Your task to perform on an android device: add a contact Image 0: 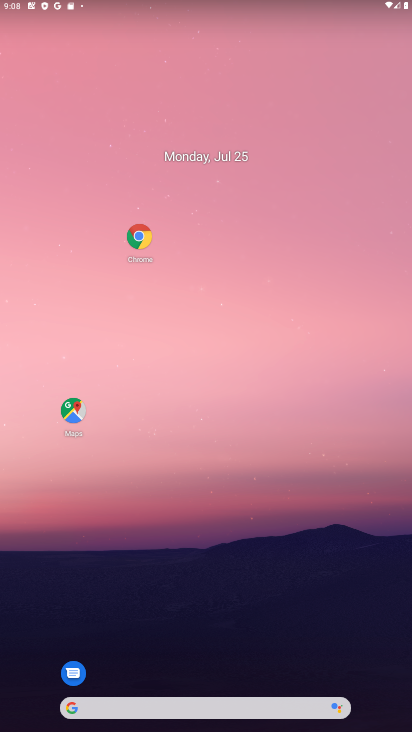
Step 0: drag from (270, 683) to (297, 7)
Your task to perform on an android device: add a contact Image 1: 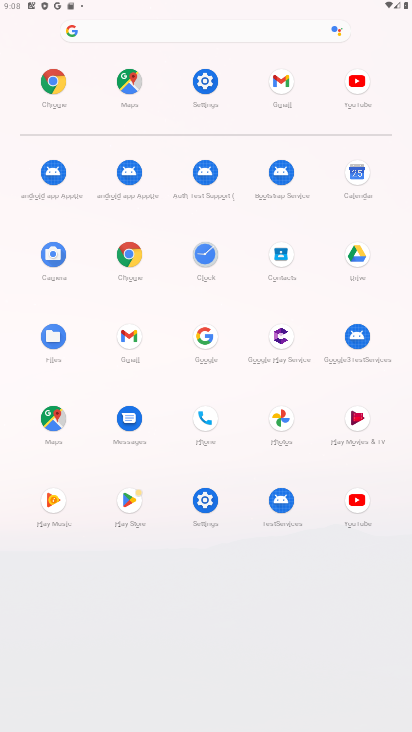
Step 1: click (268, 255)
Your task to perform on an android device: add a contact Image 2: 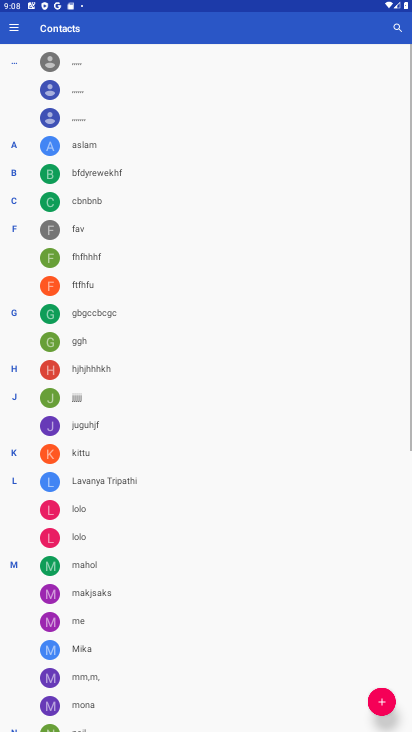
Step 2: task complete